Your task to perform on an android device: read, delete, or share a saved page in the chrome app Image 0: 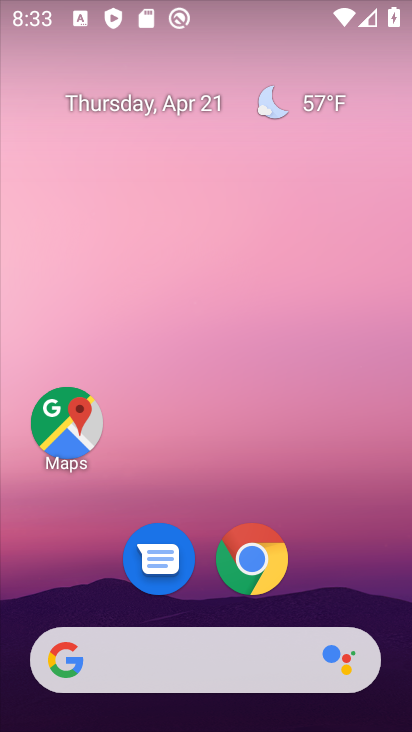
Step 0: click (258, 556)
Your task to perform on an android device: read, delete, or share a saved page in the chrome app Image 1: 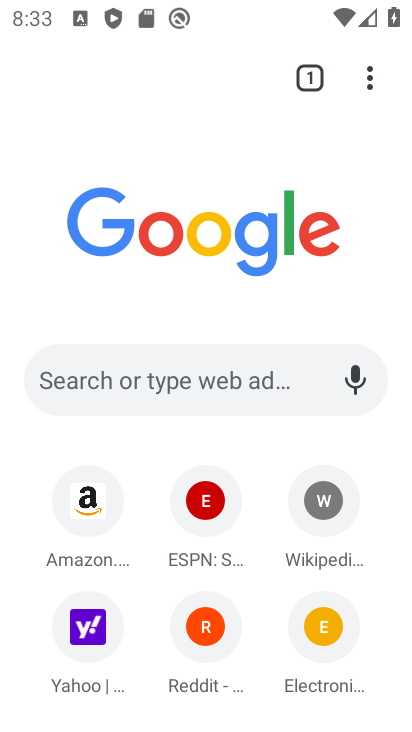
Step 1: click (379, 80)
Your task to perform on an android device: read, delete, or share a saved page in the chrome app Image 2: 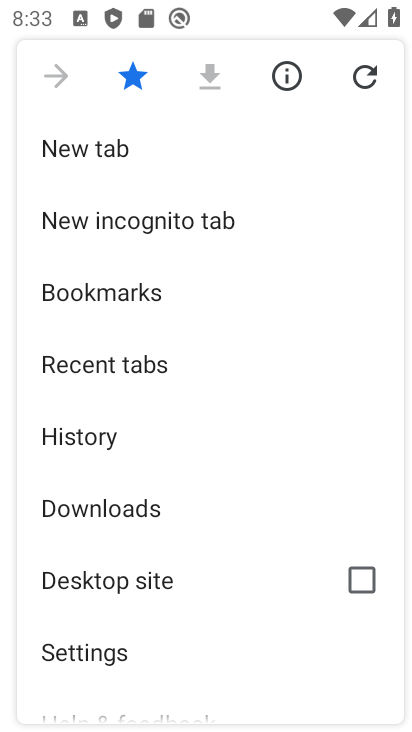
Step 2: click (147, 503)
Your task to perform on an android device: read, delete, or share a saved page in the chrome app Image 3: 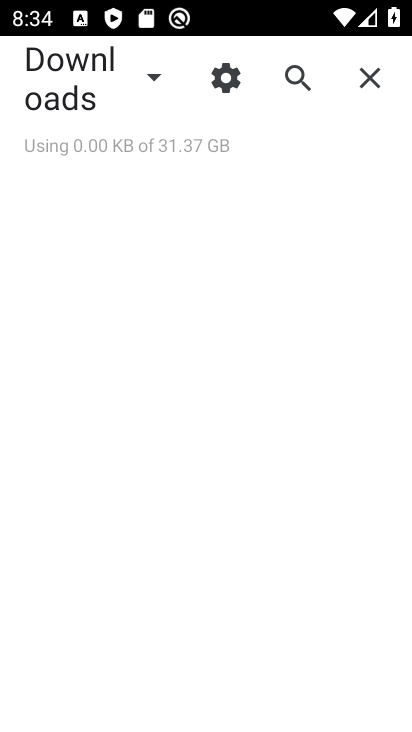
Step 3: task complete